Your task to perform on an android device: Open Yahoo.com Image 0: 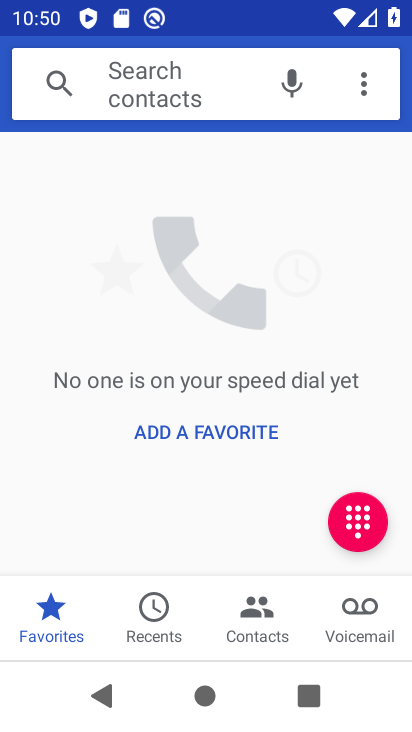
Step 0: press back button
Your task to perform on an android device: Open Yahoo.com Image 1: 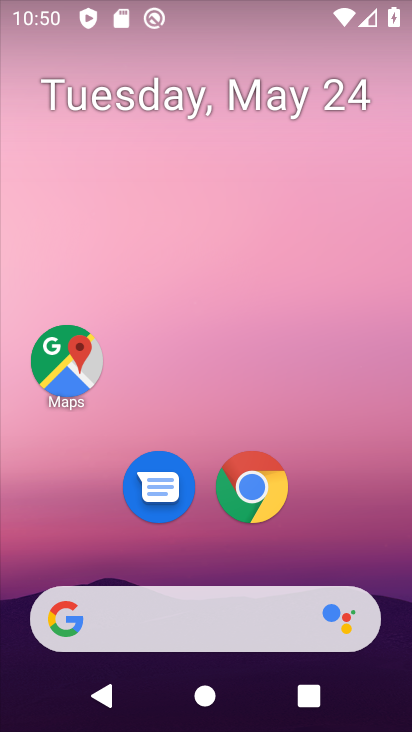
Step 1: click (246, 488)
Your task to perform on an android device: Open Yahoo.com Image 2: 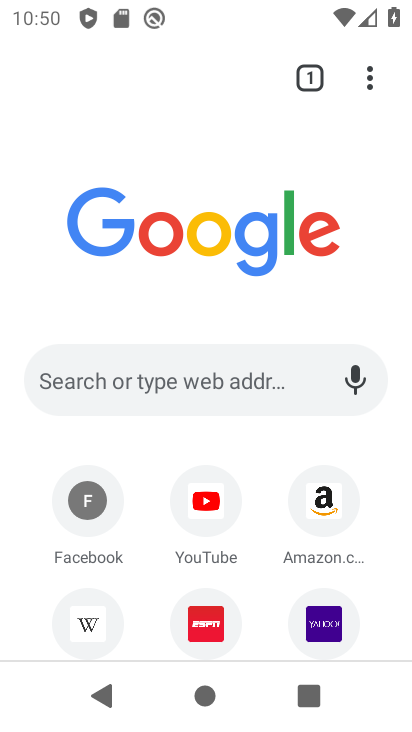
Step 2: click (318, 618)
Your task to perform on an android device: Open Yahoo.com Image 3: 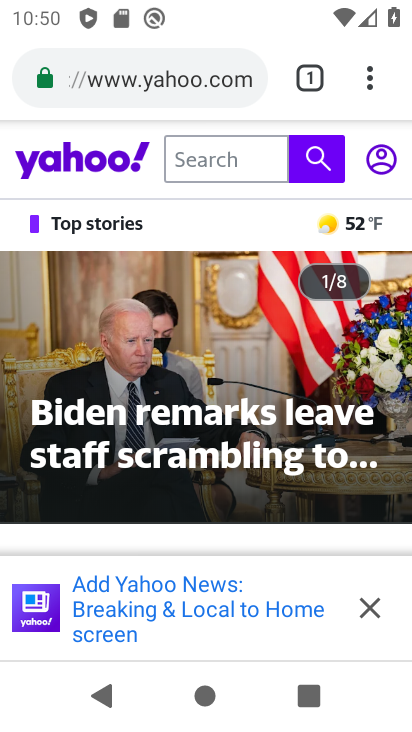
Step 3: task complete